Your task to perform on an android device: Clear the cart on ebay.com. Search for "logitech g pro" on ebay.com, select the first entry, and add it to the cart. Image 0: 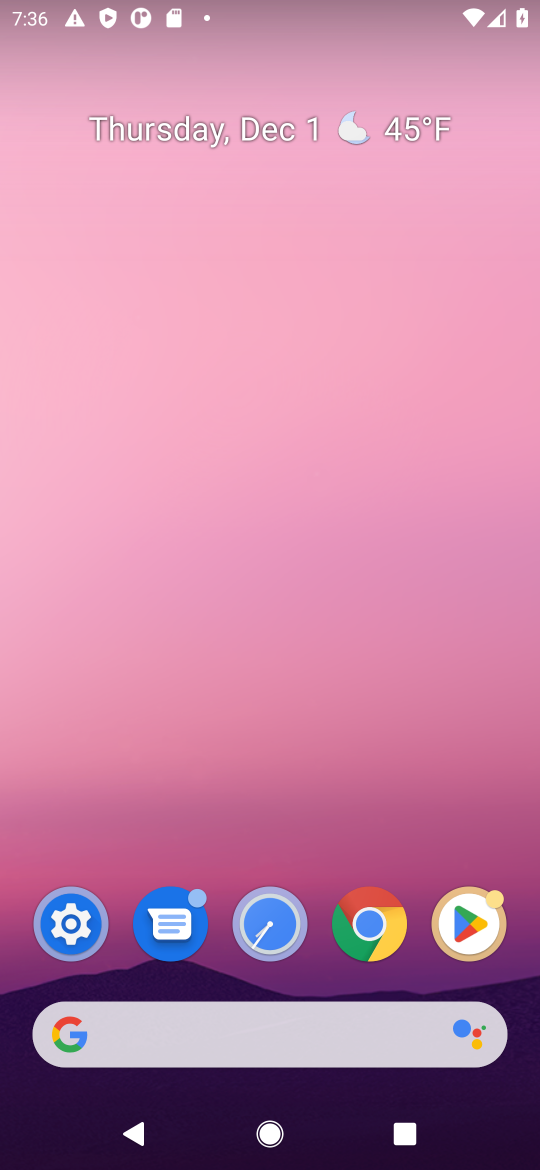
Step 0: click (301, 1018)
Your task to perform on an android device: Clear the cart on ebay.com. Search for "logitech g pro" on ebay.com, select the first entry, and add it to the cart. Image 1: 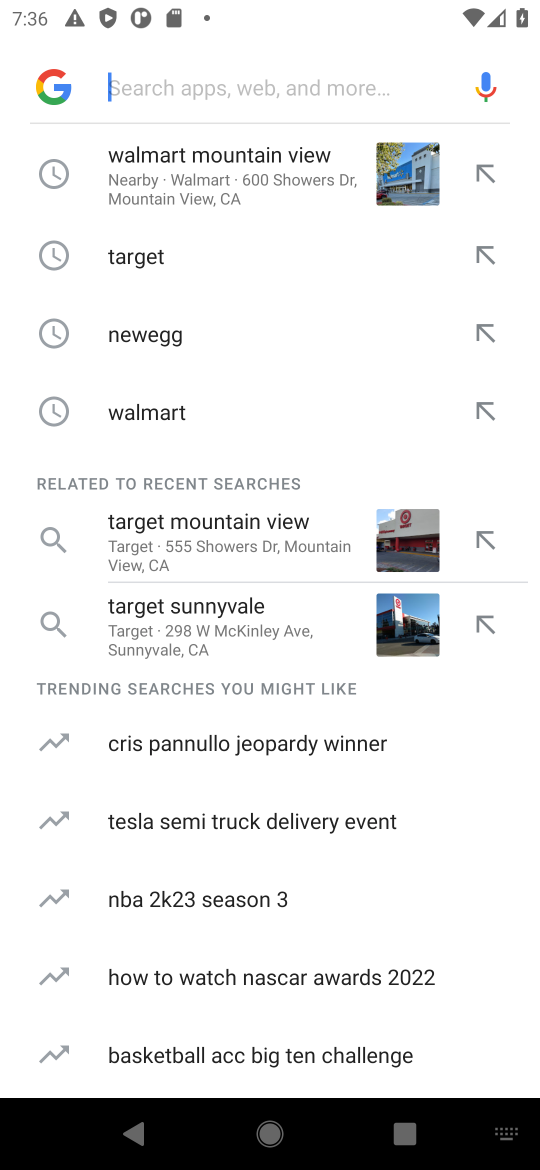
Step 1: type "ebay.com"
Your task to perform on an android device: Clear the cart on ebay.com. Search for "logitech g pro" on ebay.com, select the first entry, and add it to the cart. Image 2: 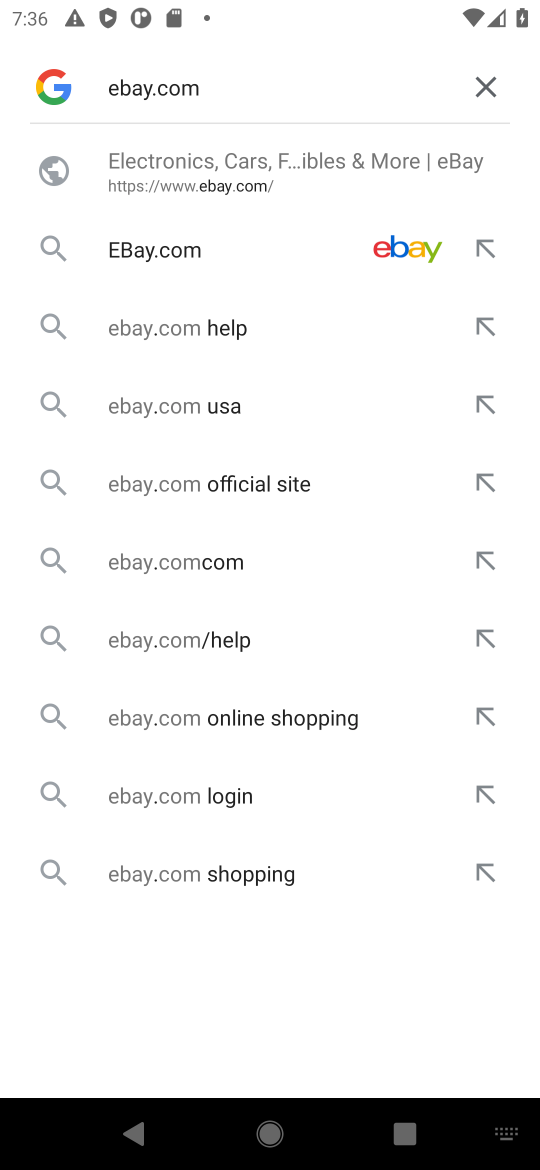
Step 2: click (137, 181)
Your task to perform on an android device: Clear the cart on ebay.com. Search for "logitech g pro" on ebay.com, select the first entry, and add it to the cart. Image 3: 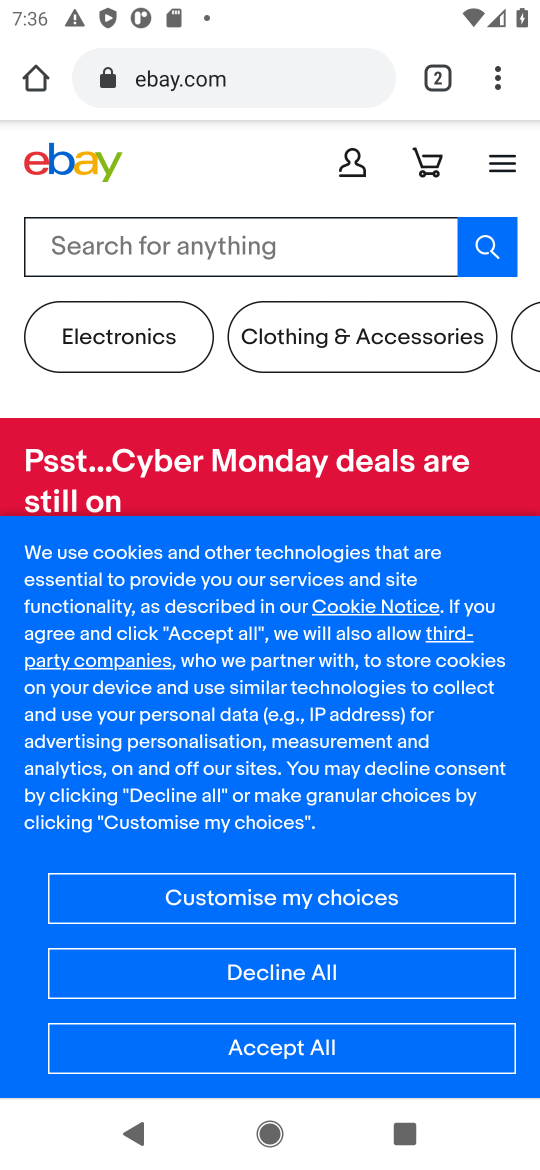
Step 3: click (186, 241)
Your task to perform on an android device: Clear the cart on ebay.com. Search for "logitech g pro" on ebay.com, select the first entry, and add it to the cart. Image 4: 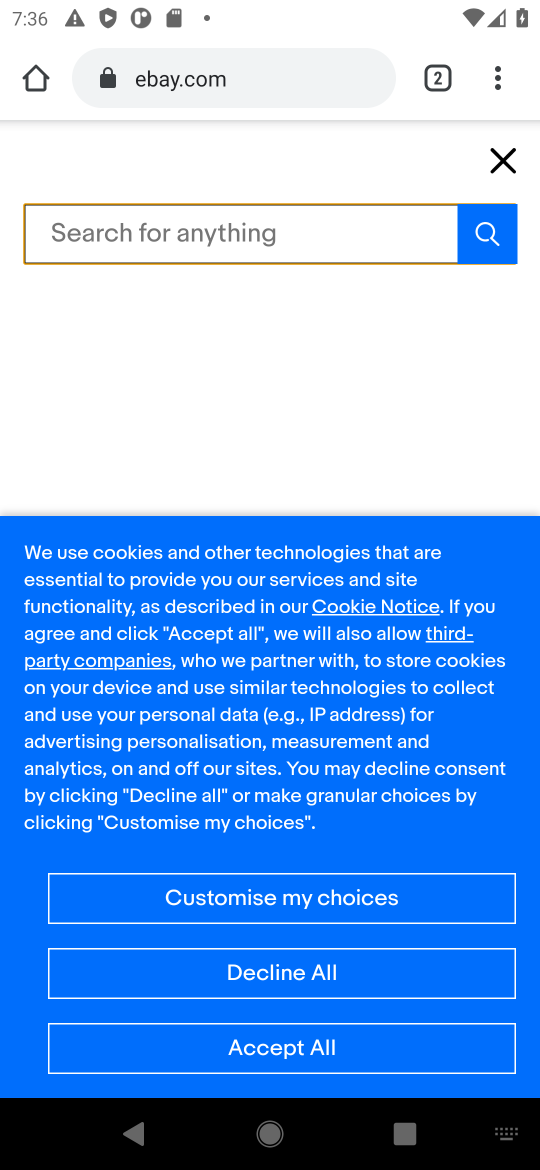
Step 4: type "logitech pro"
Your task to perform on an android device: Clear the cart on ebay.com. Search for "logitech g pro" on ebay.com, select the first entry, and add it to the cart. Image 5: 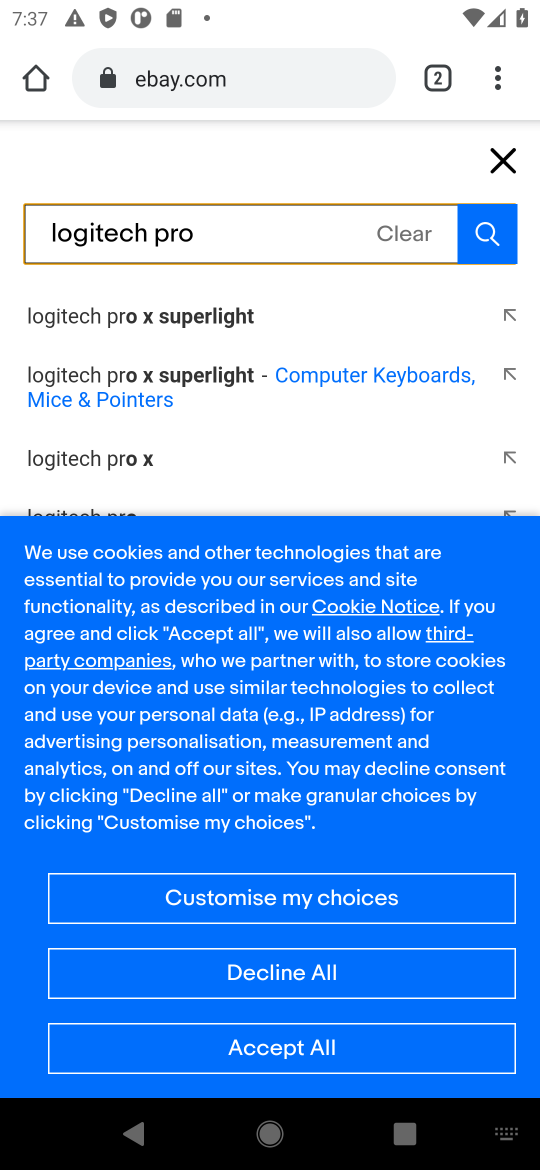
Step 5: click (219, 303)
Your task to perform on an android device: Clear the cart on ebay.com. Search for "logitech g pro" on ebay.com, select the first entry, and add it to the cart. Image 6: 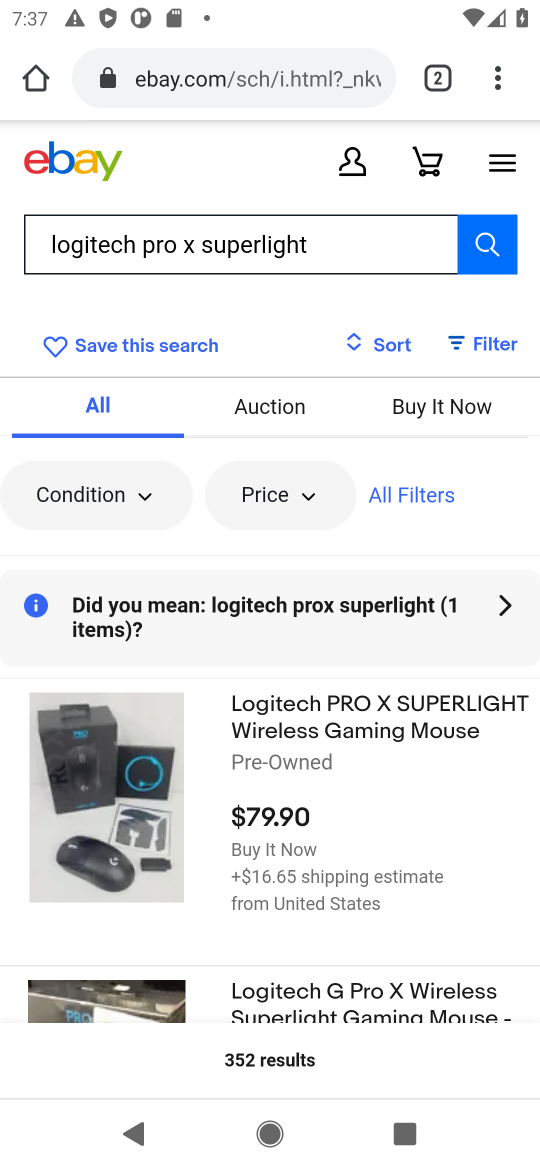
Step 6: click (291, 730)
Your task to perform on an android device: Clear the cart on ebay.com. Search for "logitech g pro" on ebay.com, select the first entry, and add it to the cart. Image 7: 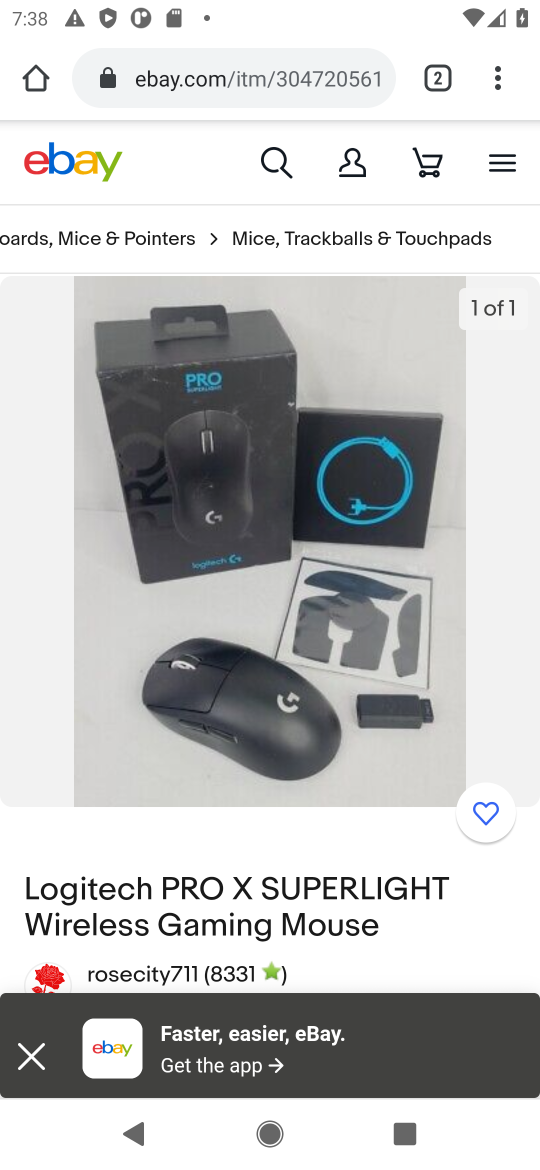
Step 7: task complete